Your task to perform on an android device: Go to Google maps Image 0: 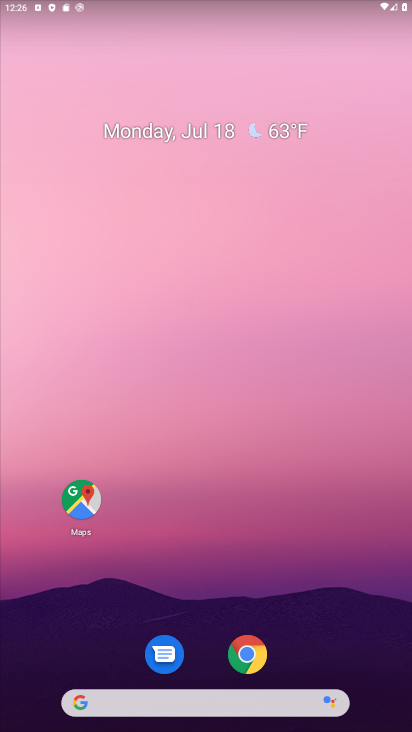
Step 0: click (96, 508)
Your task to perform on an android device: Go to Google maps Image 1: 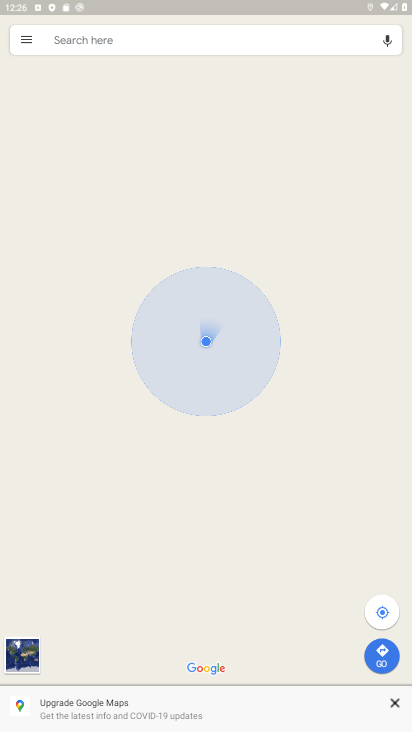
Step 1: task complete